Your task to perform on an android device: change the clock style Image 0: 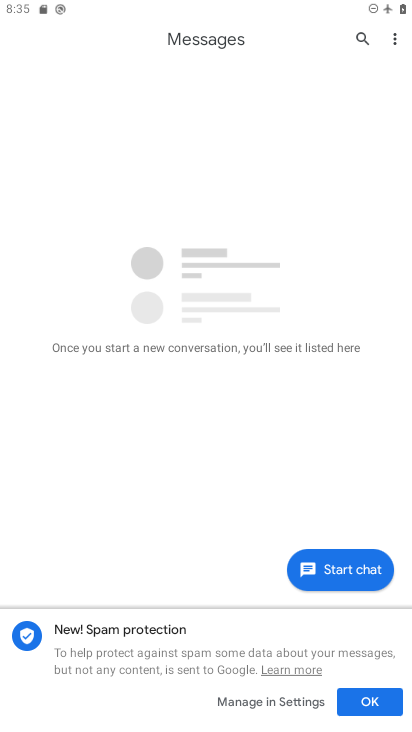
Step 0: press home button
Your task to perform on an android device: change the clock style Image 1: 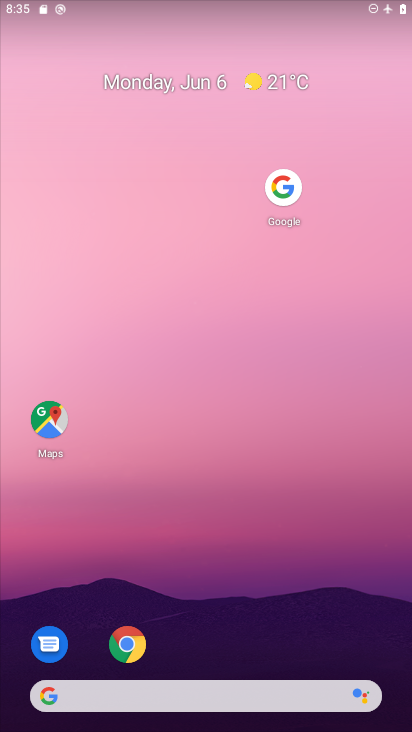
Step 1: drag from (213, 673) to (161, 154)
Your task to perform on an android device: change the clock style Image 2: 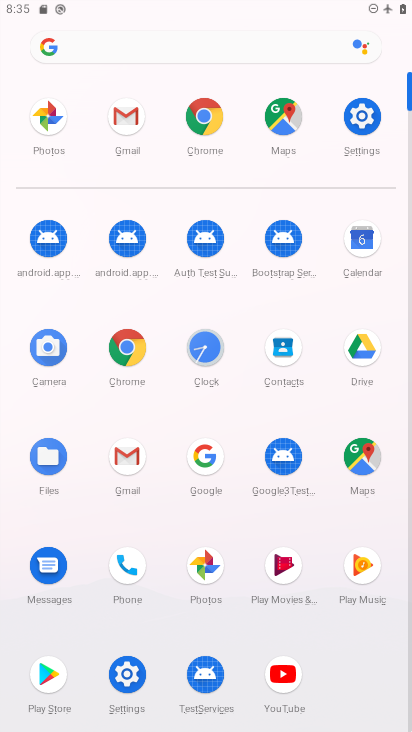
Step 2: click (206, 341)
Your task to perform on an android device: change the clock style Image 3: 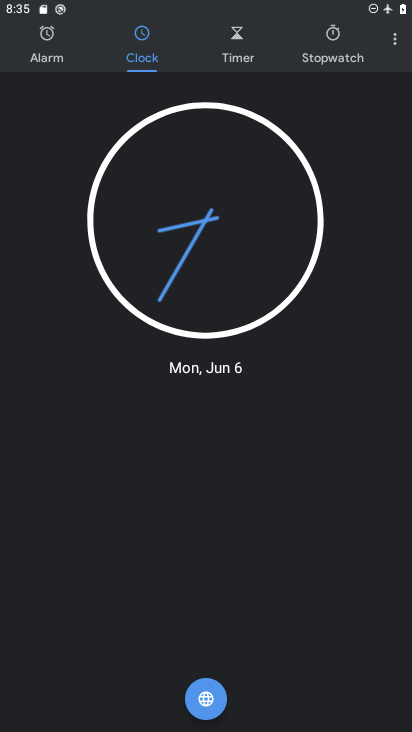
Step 3: click (384, 32)
Your task to perform on an android device: change the clock style Image 4: 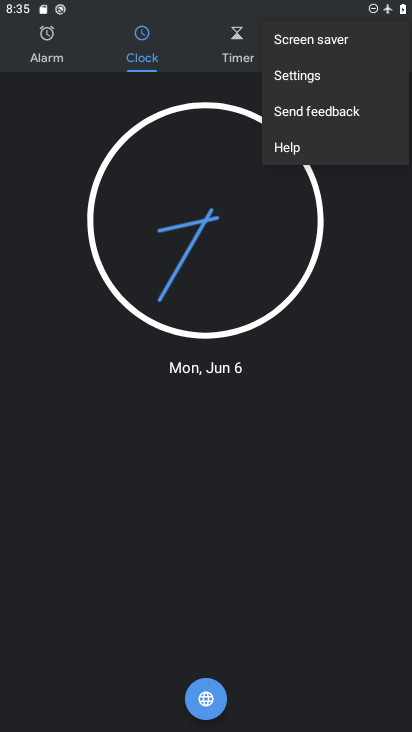
Step 4: click (318, 73)
Your task to perform on an android device: change the clock style Image 5: 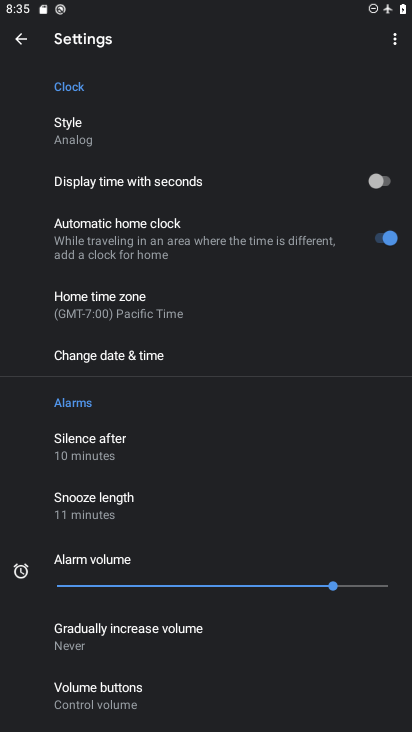
Step 5: task complete